Your task to perform on an android device: toggle notifications settings in the gmail app Image 0: 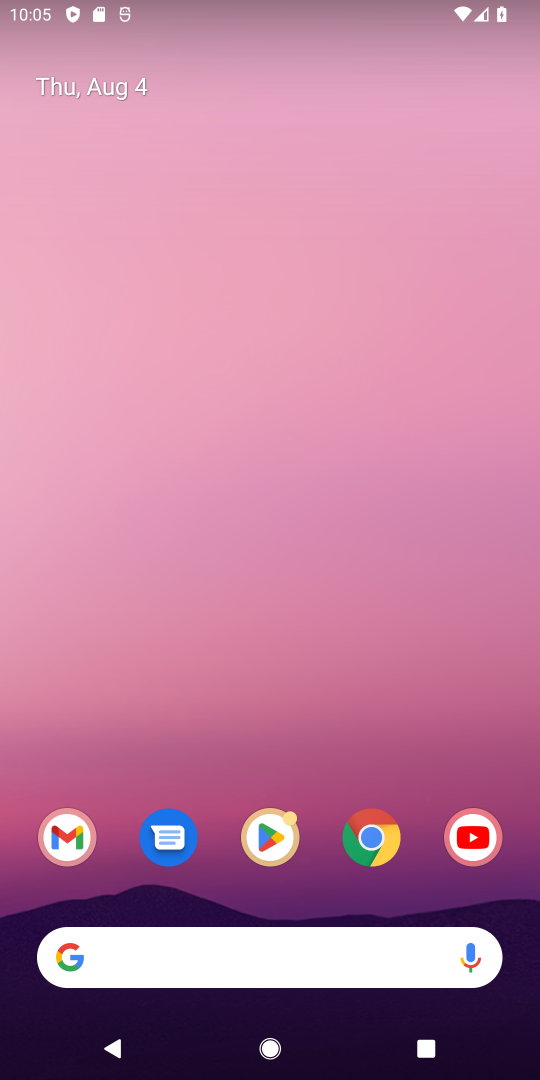
Step 0: drag from (261, 665) to (289, 113)
Your task to perform on an android device: toggle notifications settings in the gmail app Image 1: 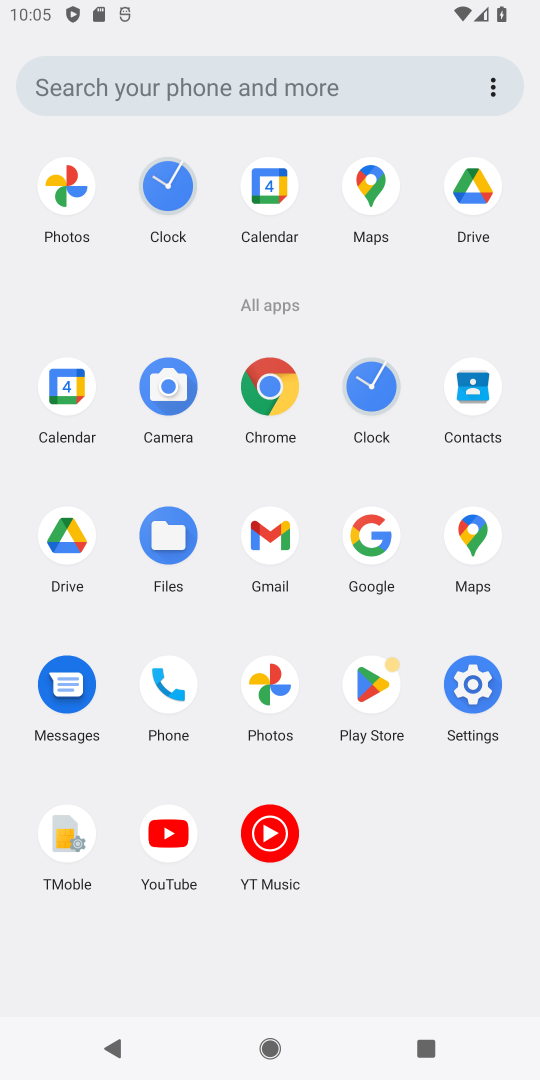
Step 1: click (261, 534)
Your task to perform on an android device: toggle notifications settings in the gmail app Image 2: 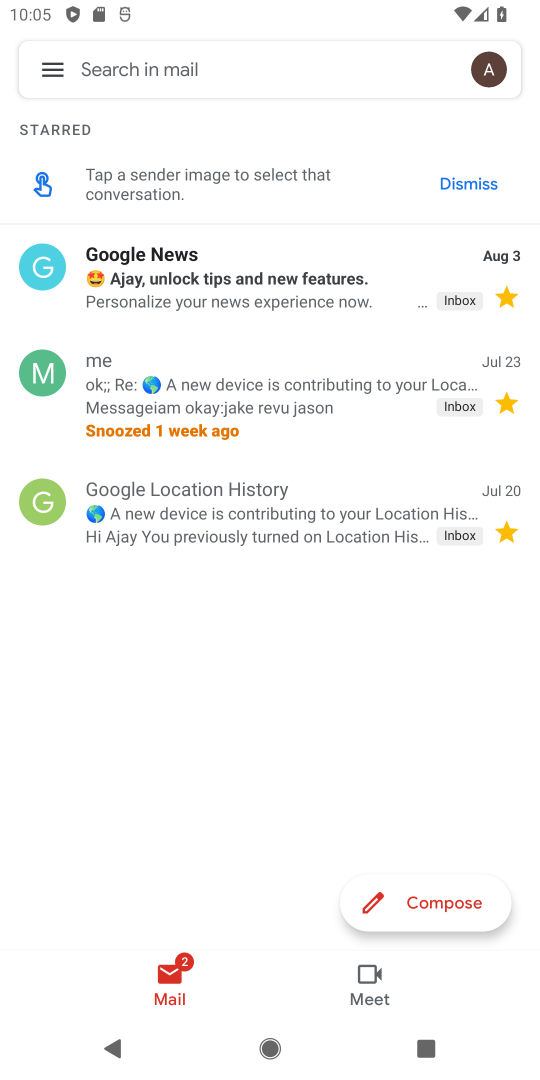
Step 2: click (57, 66)
Your task to perform on an android device: toggle notifications settings in the gmail app Image 3: 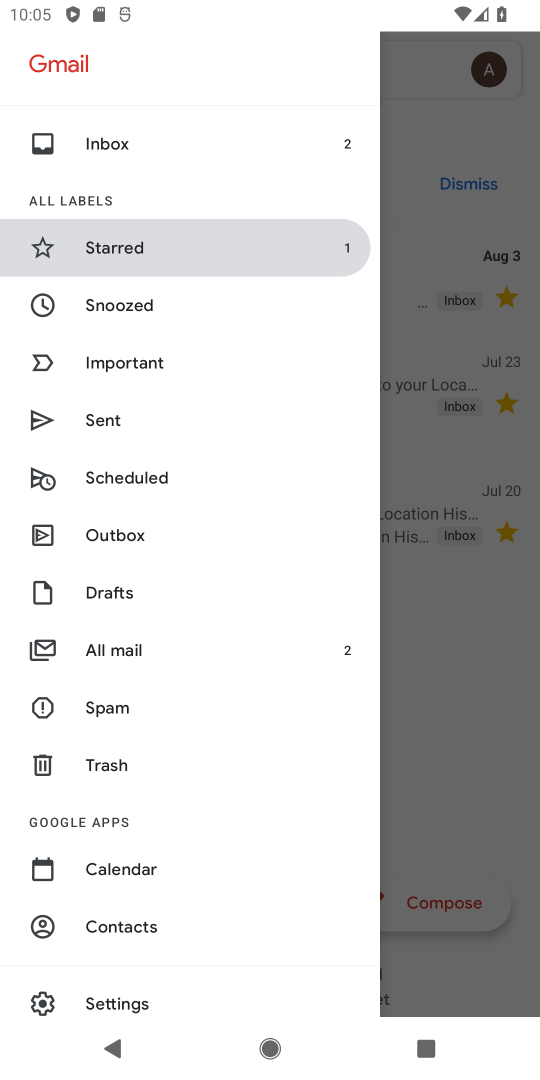
Step 3: click (125, 1005)
Your task to perform on an android device: toggle notifications settings in the gmail app Image 4: 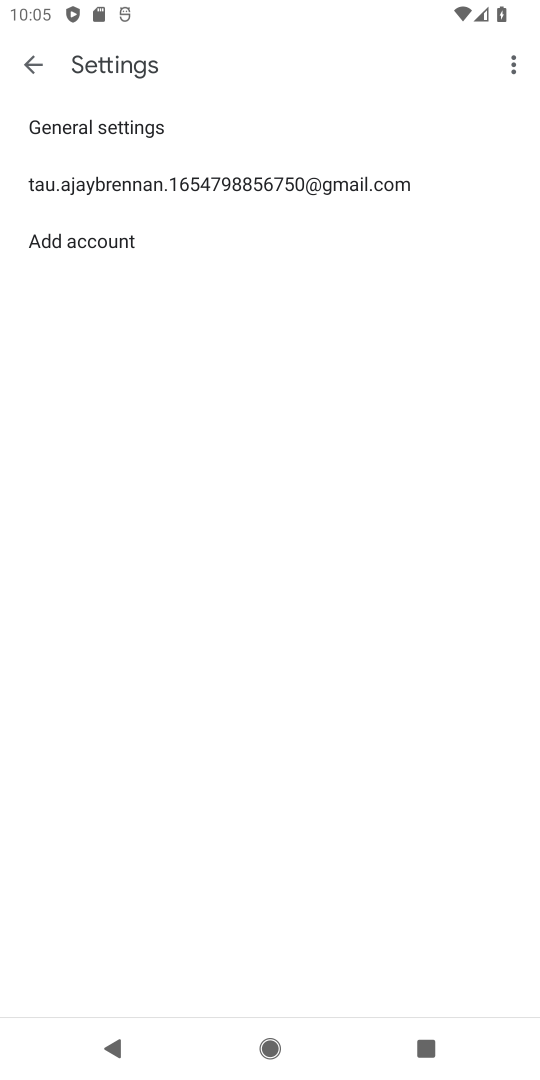
Step 4: click (113, 172)
Your task to perform on an android device: toggle notifications settings in the gmail app Image 5: 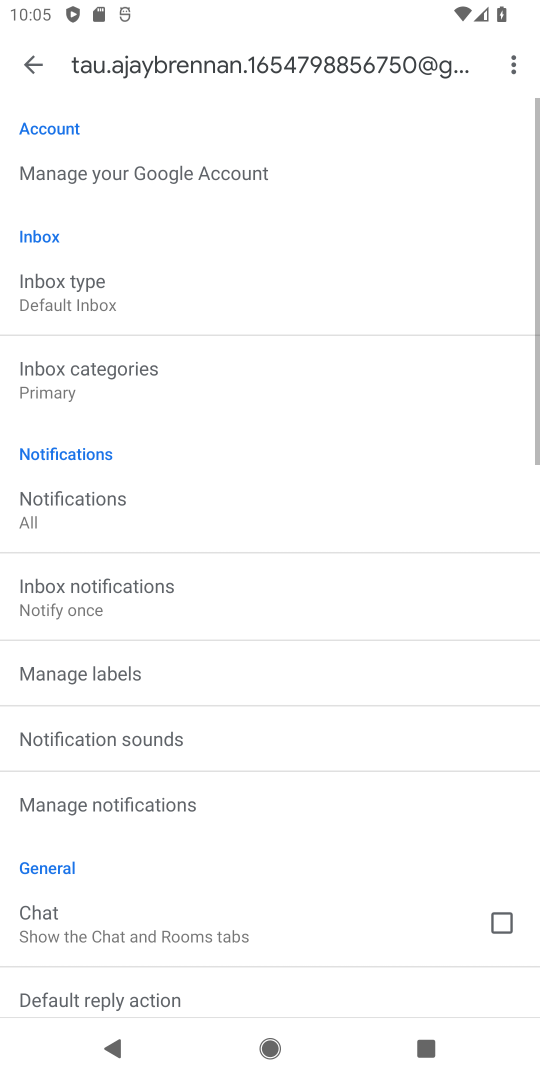
Step 5: click (85, 505)
Your task to perform on an android device: toggle notifications settings in the gmail app Image 6: 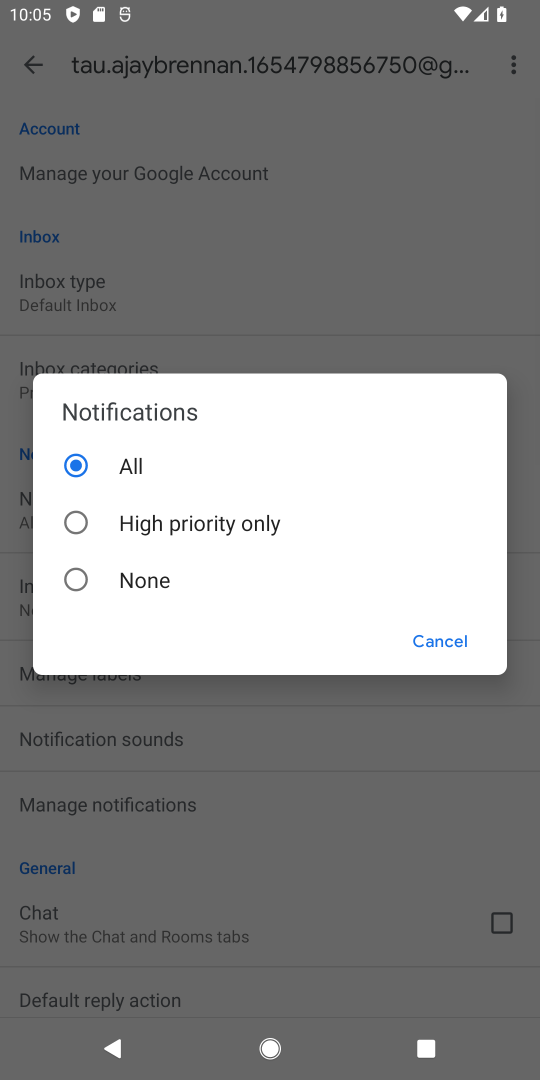
Step 6: click (107, 564)
Your task to perform on an android device: toggle notifications settings in the gmail app Image 7: 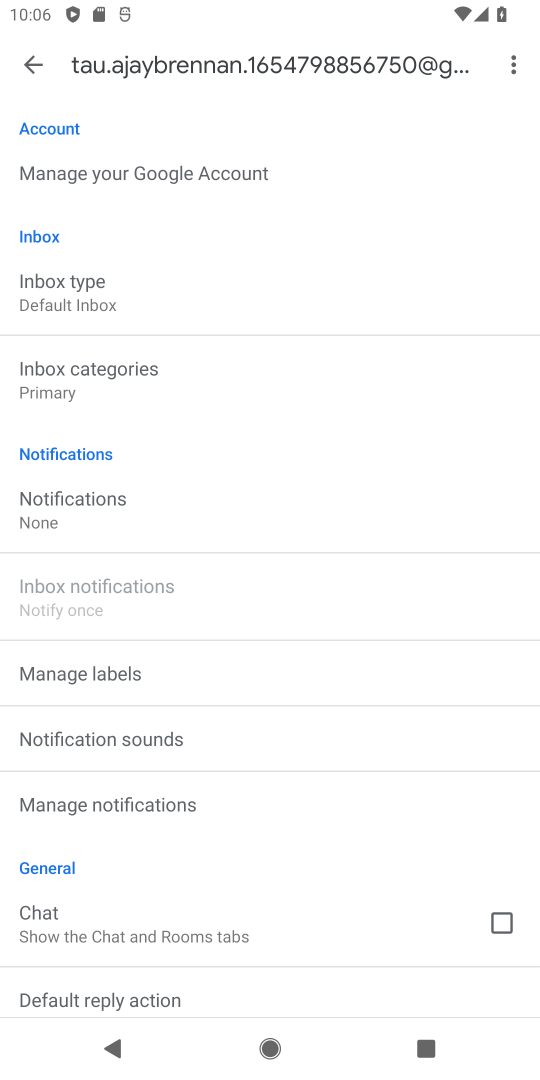
Step 7: task complete